Your task to perform on an android device: toggle wifi Image 0: 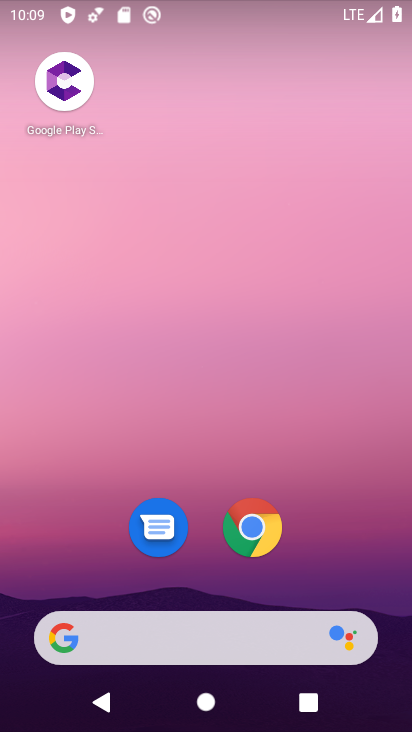
Step 0: drag from (316, 583) to (288, 36)
Your task to perform on an android device: toggle wifi Image 1: 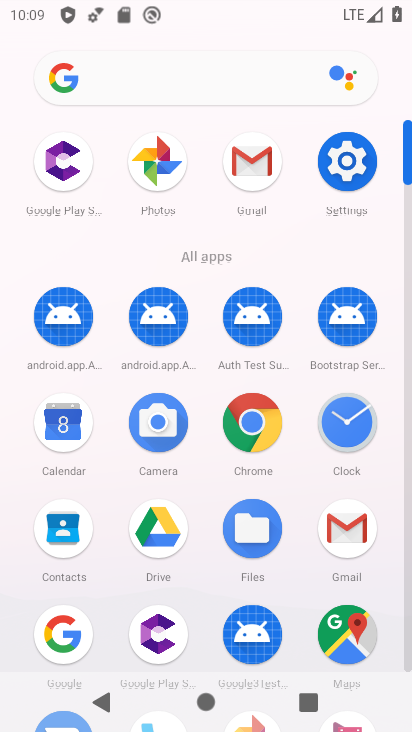
Step 1: click (343, 182)
Your task to perform on an android device: toggle wifi Image 2: 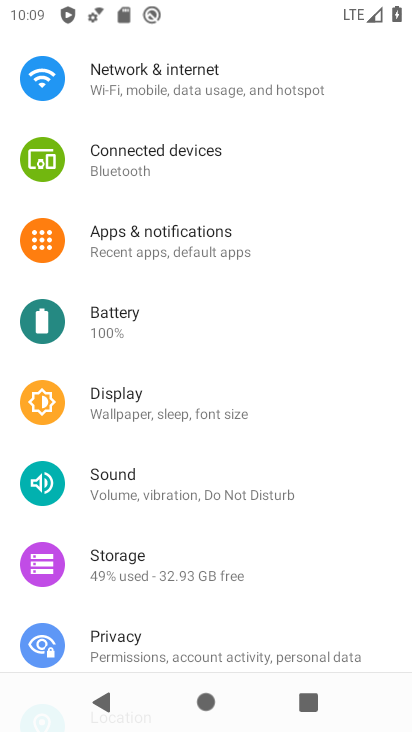
Step 2: click (224, 89)
Your task to perform on an android device: toggle wifi Image 3: 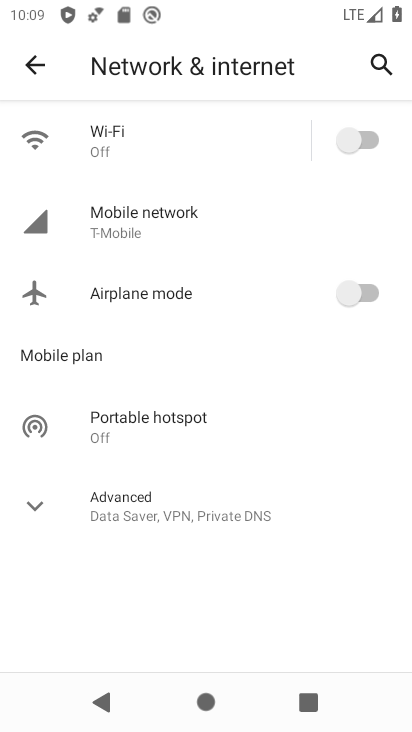
Step 3: click (357, 147)
Your task to perform on an android device: toggle wifi Image 4: 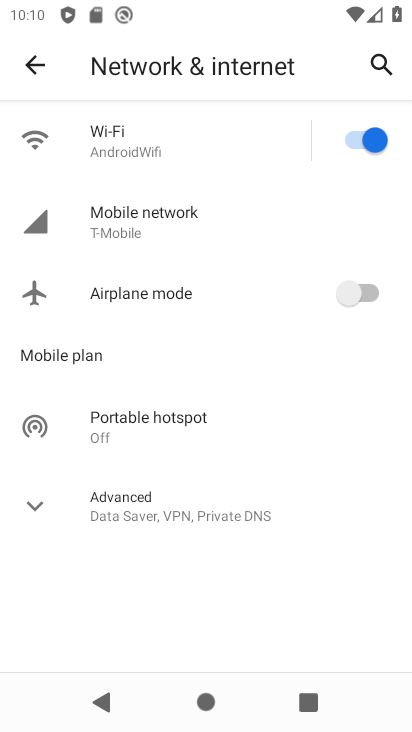
Step 4: task complete